Your task to perform on an android device: Open battery settings Image 0: 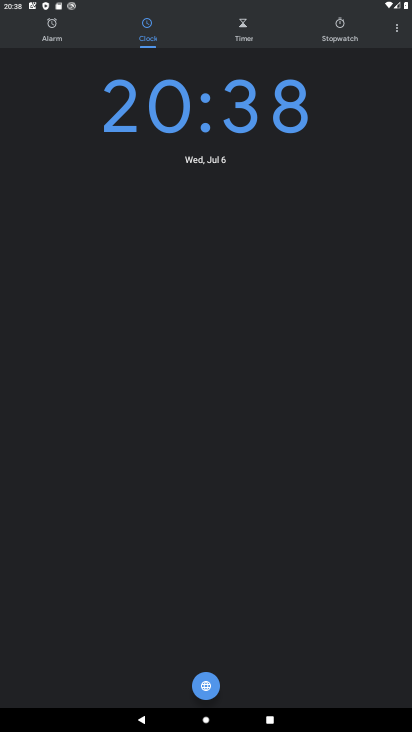
Step 0: press home button
Your task to perform on an android device: Open battery settings Image 1: 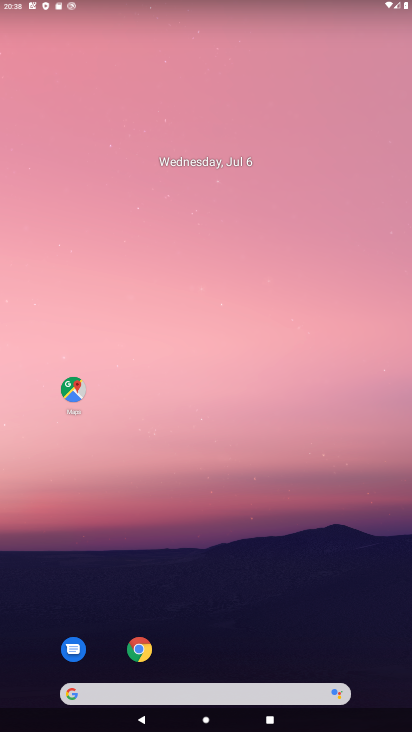
Step 1: drag from (205, 633) to (337, 8)
Your task to perform on an android device: Open battery settings Image 2: 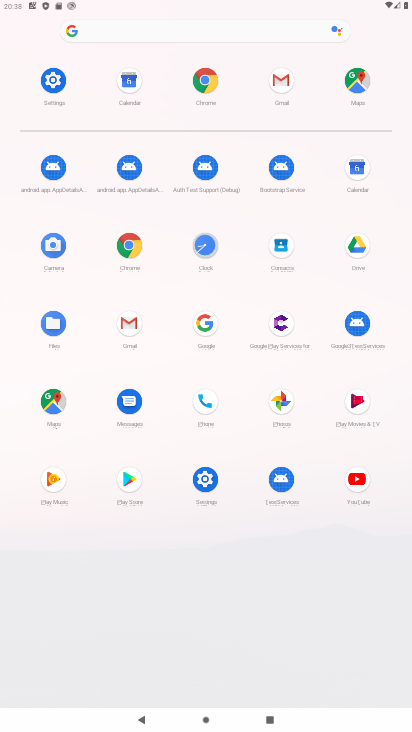
Step 2: click (203, 495)
Your task to perform on an android device: Open battery settings Image 3: 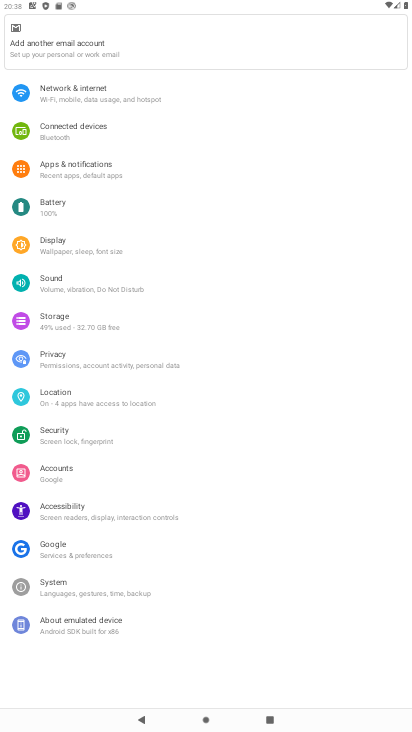
Step 3: click (69, 210)
Your task to perform on an android device: Open battery settings Image 4: 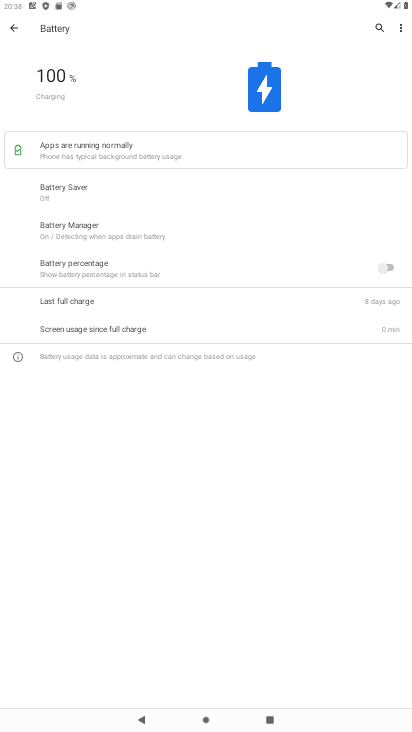
Step 4: task complete